Your task to perform on an android device: change text size in settings app Image 0: 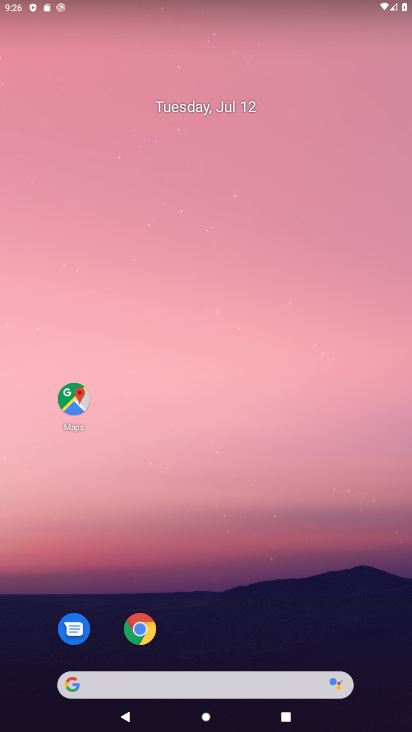
Step 0: drag from (308, 611) to (339, 83)
Your task to perform on an android device: change text size in settings app Image 1: 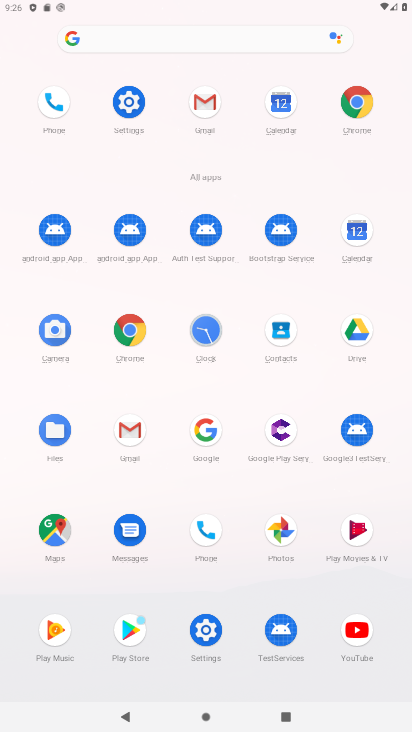
Step 1: click (142, 98)
Your task to perform on an android device: change text size in settings app Image 2: 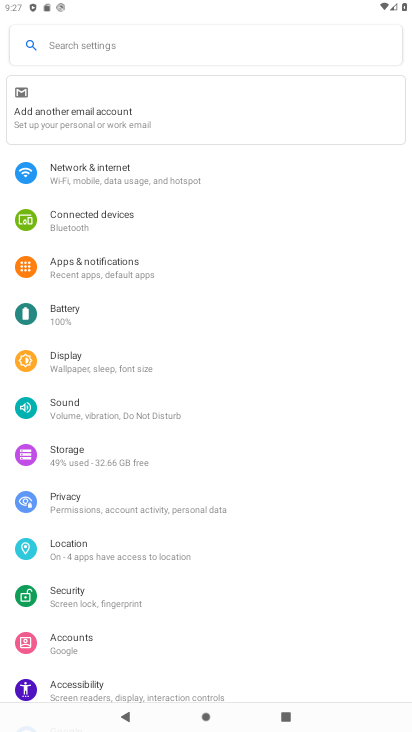
Step 2: drag from (115, 668) to (186, 327)
Your task to perform on an android device: change text size in settings app Image 3: 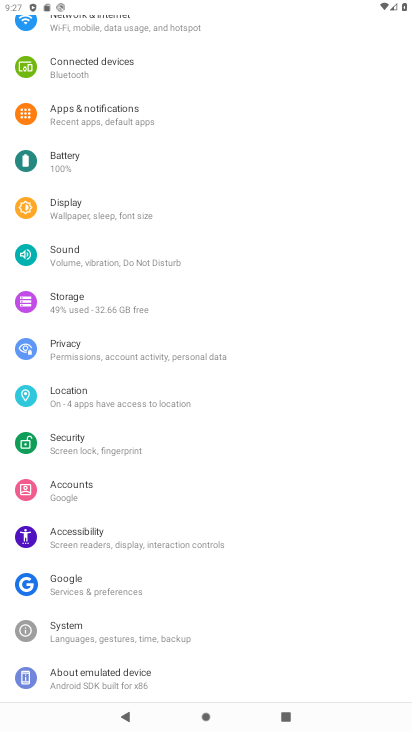
Step 3: click (134, 539)
Your task to perform on an android device: change text size in settings app Image 4: 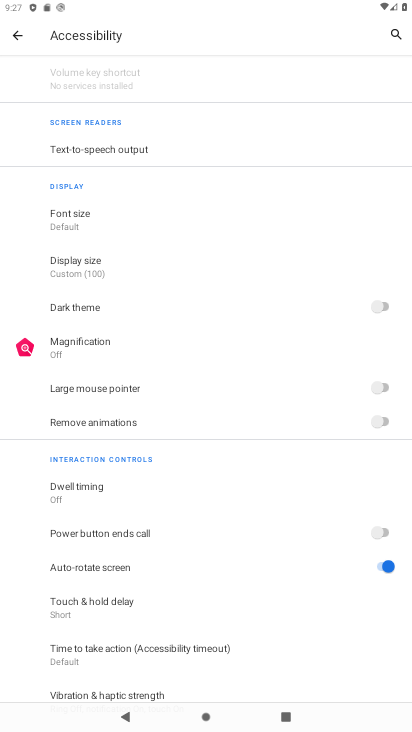
Step 4: click (83, 217)
Your task to perform on an android device: change text size in settings app Image 5: 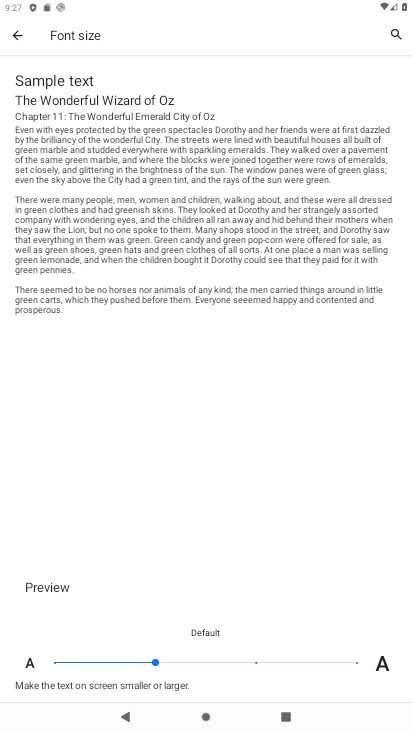
Step 5: click (241, 660)
Your task to perform on an android device: change text size in settings app Image 6: 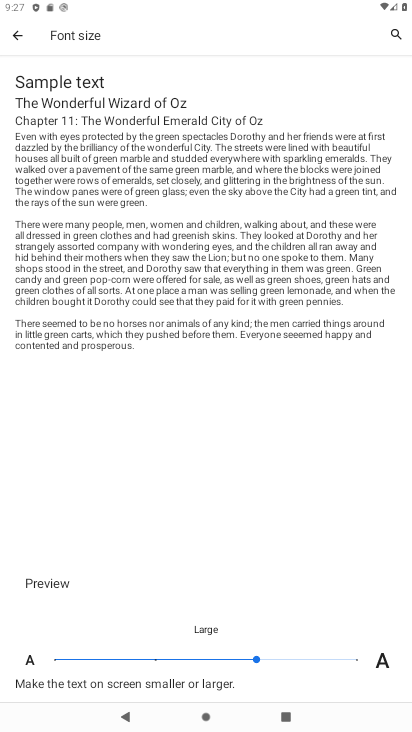
Step 6: task complete